Your task to perform on an android device: Open calendar and show me the fourth week of next month Image 0: 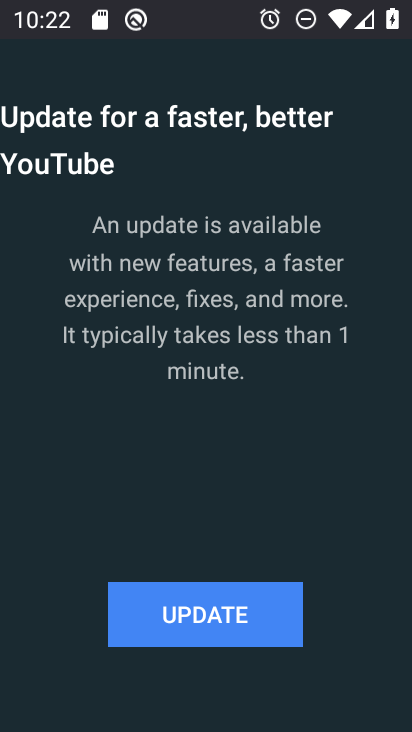
Step 0: press home button
Your task to perform on an android device: Open calendar and show me the fourth week of next month Image 1: 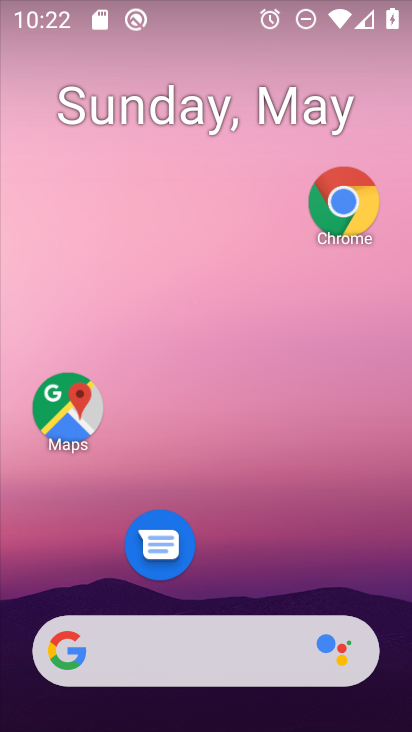
Step 1: drag from (251, 572) to (337, 9)
Your task to perform on an android device: Open calendar and show me the fourth week of next month Image 2: 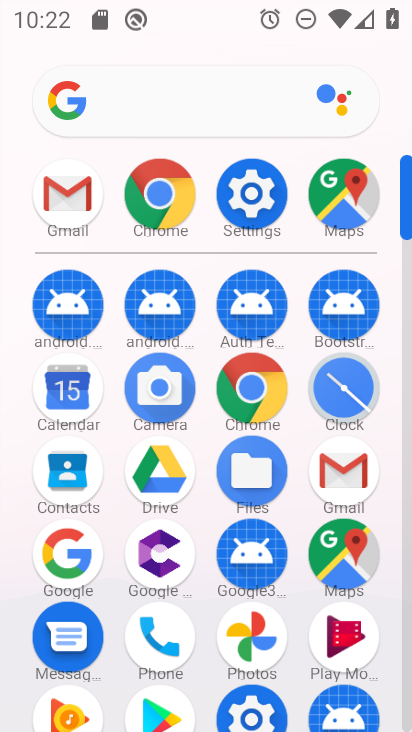
Step 2: click (63, 400)
Your task to perform on an android device: Open calendar and show me the fourth week of next month Image 3: 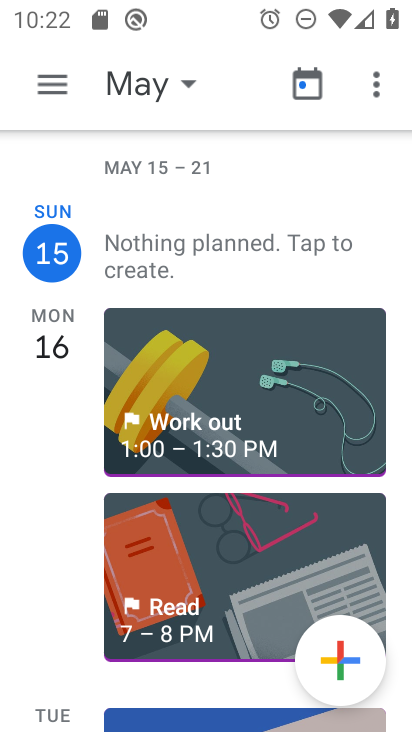
Step 3: click (138, 99)
Your task to perform on an android device: Open calendar and show me the fourth week of next month Image 4: 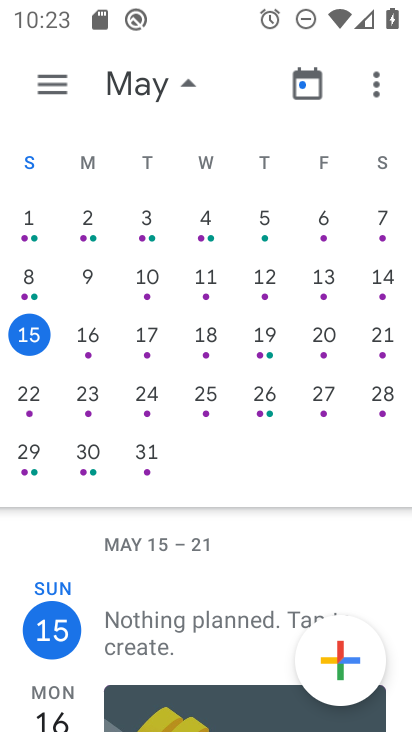
Step 4: drag from (340, 322) to (46, 288)
Your task to perform on an android device: Open calendar and show me the fourth week of next month Image 5: 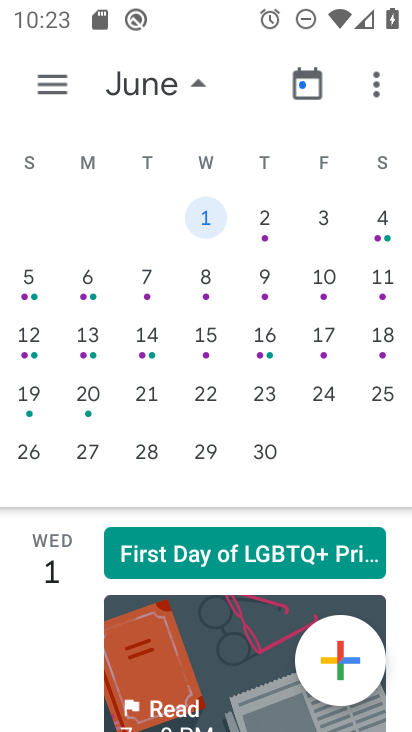
Step 5: click (35, 408)
Your task to perform on an android device: Open calendar and show me the fourth week of next month Image 6: 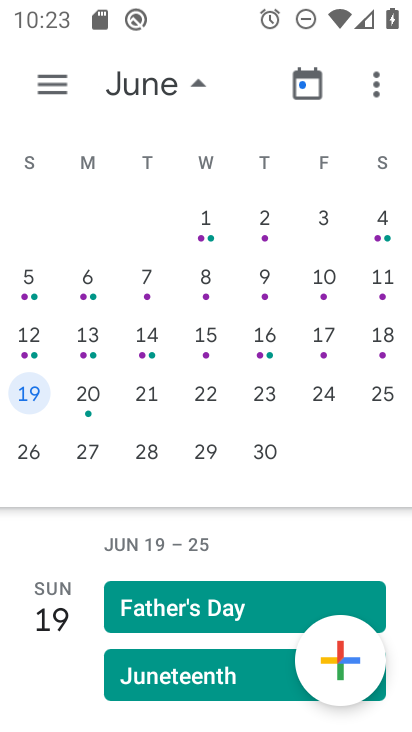
Step 6: task complete